Your task to perform on an android device: change alarm snooze length Image 0: 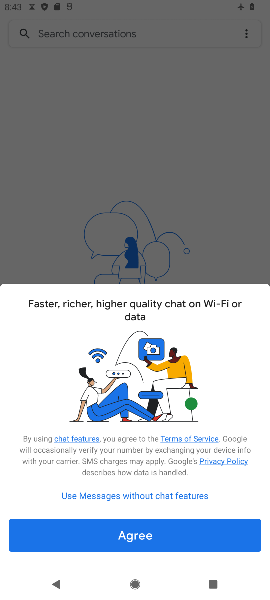
Step 0: press home button
Your task to perform on an android device: change alarm snooze length Image 1: 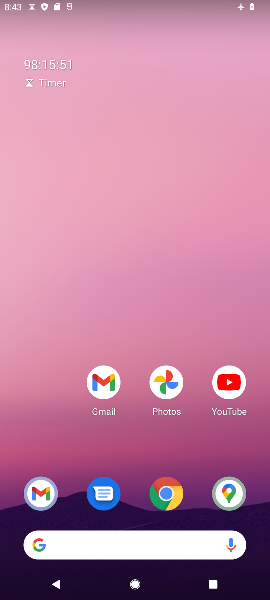
Step 1: drag from (145, 490) to (133, 228)
Your task to perform on an android device: change alarm snooze length Image 2: 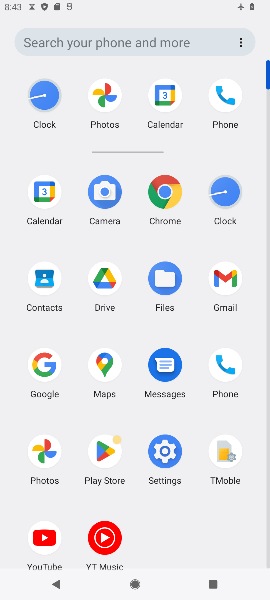
Step 2: click (230, 191)
Your task to perform on an android device: change alarm snooze length Image 3: 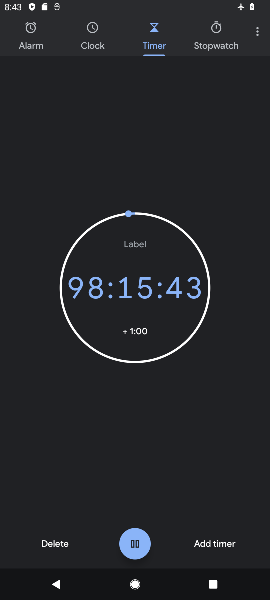
Step 3: click (256, 32)
Your task to perform on an android device: change alarm snooze length Image 4: 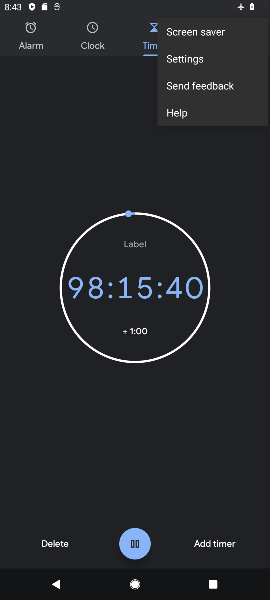
Step 4: click (201, 54)
Your task to perform on an android device: change alarm snooze length Image 5: 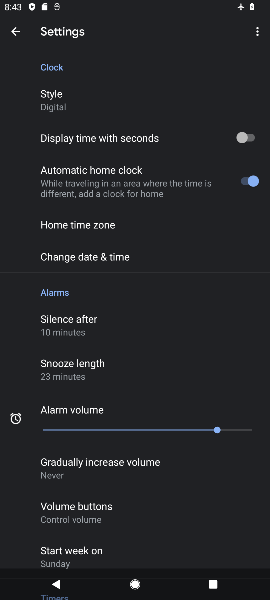
Step 5: click (81, 364)
Your task to perform on an android device: change alarm snooze length Image 6: 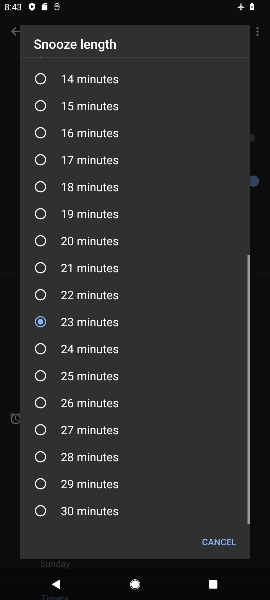
Step 6: click (79, 503)
Your task to perform on an android device: change alarm snooze length Image 7: 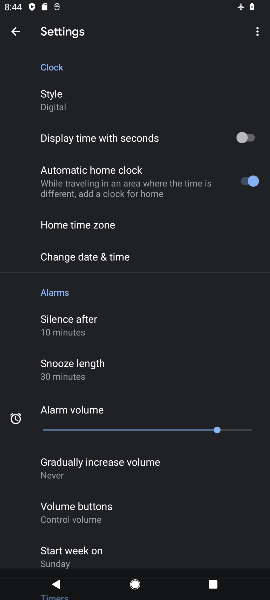
Step 7: task complete